Your task to perform on an android device: Do I have any events tomorrow? Image 0: 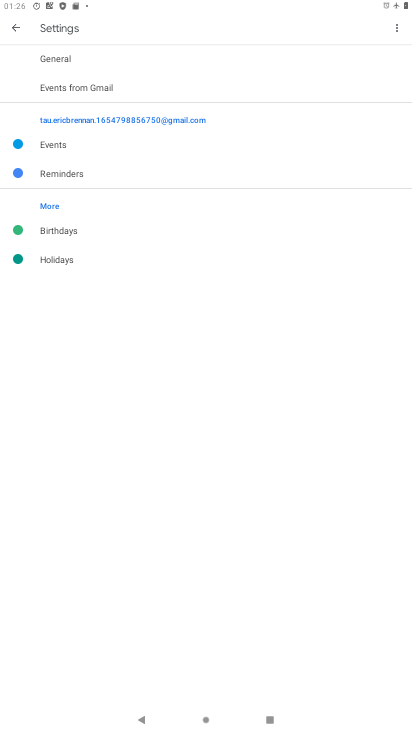
Step 0: press home button
Your task to perform on an android device: Do I have any events tomorrow? Image 1: 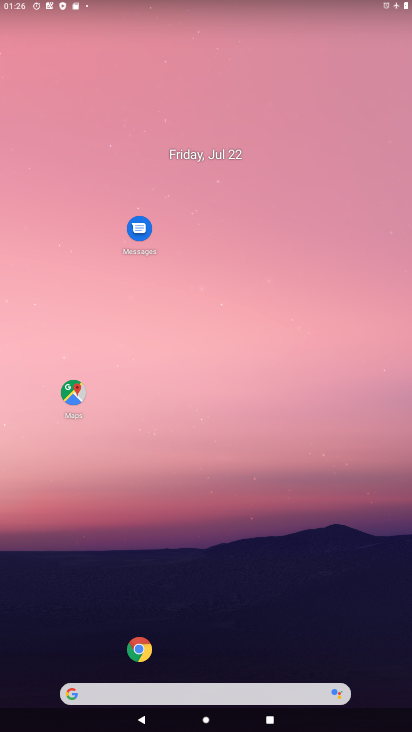
Step 1: drag from (51, 582) to (257, 0)
Your task to perform on an android device: Do I have any events tomorrow? Image 2: 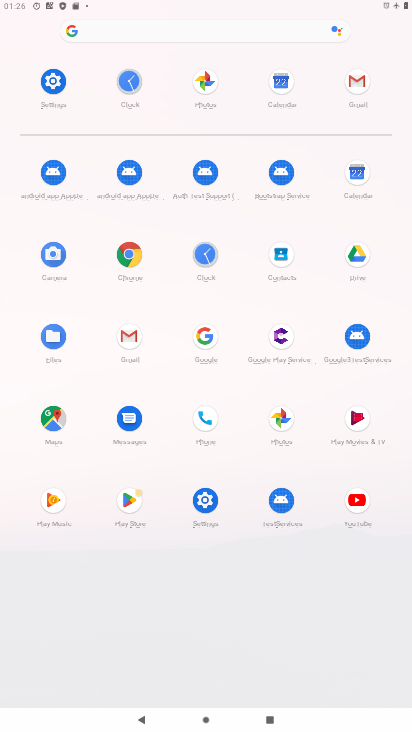
Step 2: click (290, 88)
Your task to perform on an android device: Do I have any events tomorrow? Image 3: 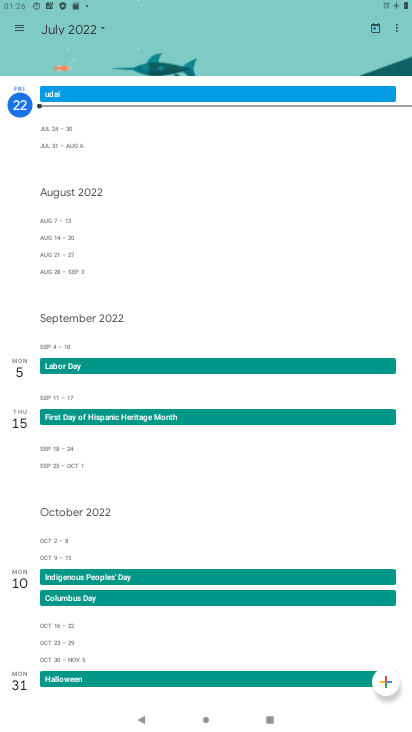
Step 3: click (88, 34)
Your task to perform on an android device: Do I have any events tomorrow? Image 4: 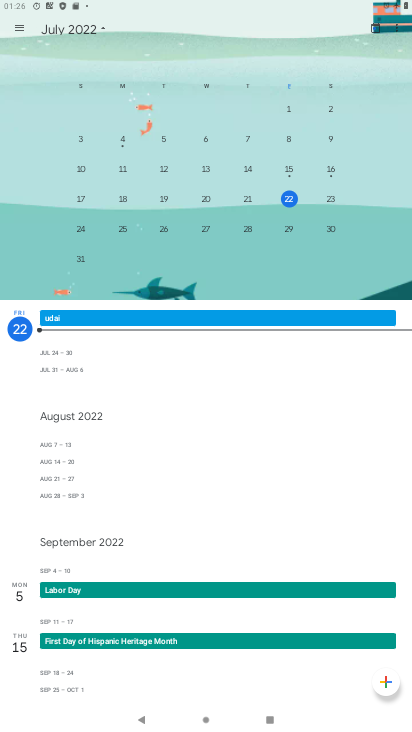
Step 4: task complete